Your task to perform on an android device: delete browsing data in the chrome app Image 0: 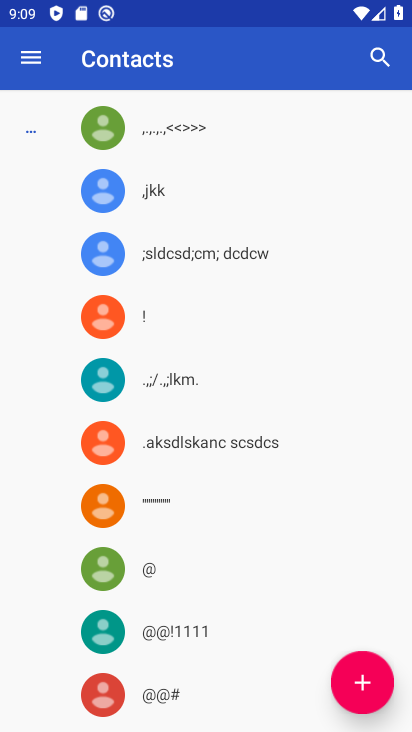
Step 0: press home button
Your task to perform on an android device: delete browsing data in the chrome app Image 1: 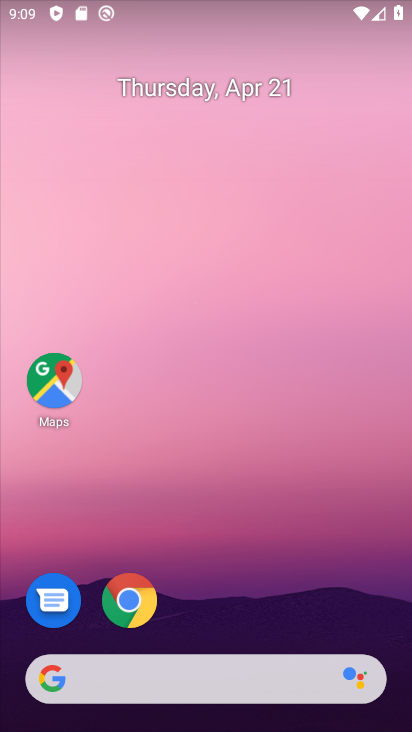
Step 1: click (132, 600)
Your task to perform on an android device: delete browsing data in the chrome app Image 2: 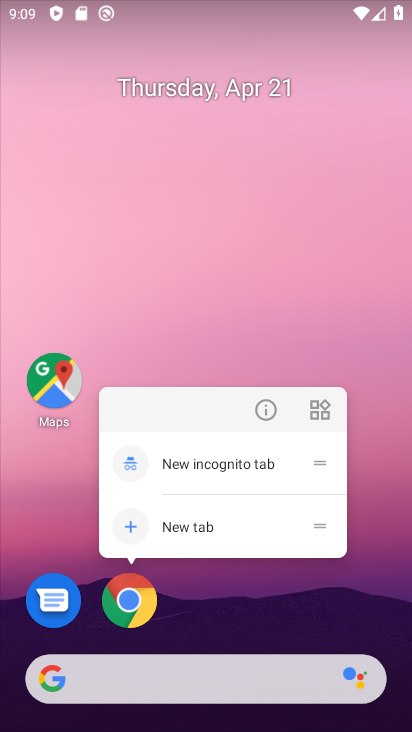
Step 2: click (132, 600)
Your task to perform on an android device: delete browsing data in the chrome app Image 3: 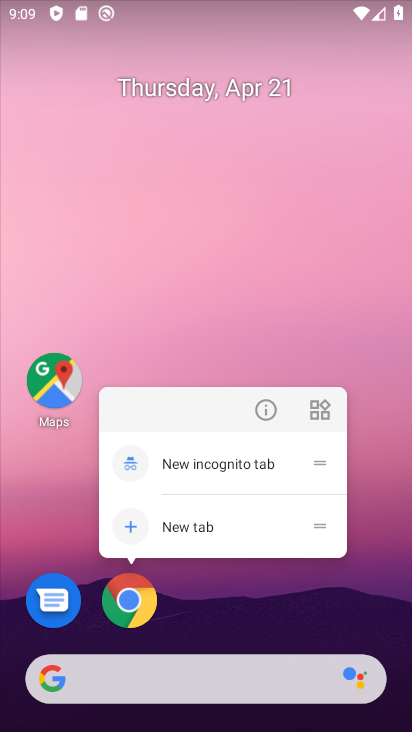
Step 3: click (259, 587)
Your task to perform on an android device: delete browsing data in the chrome app Image 4: 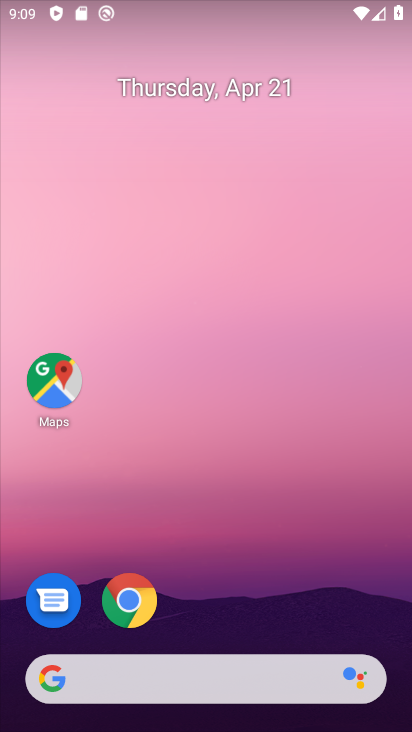
Step 4: click (133, 602)
Your task to perform on an android device: delete browsing data in the chrome app Image 5: 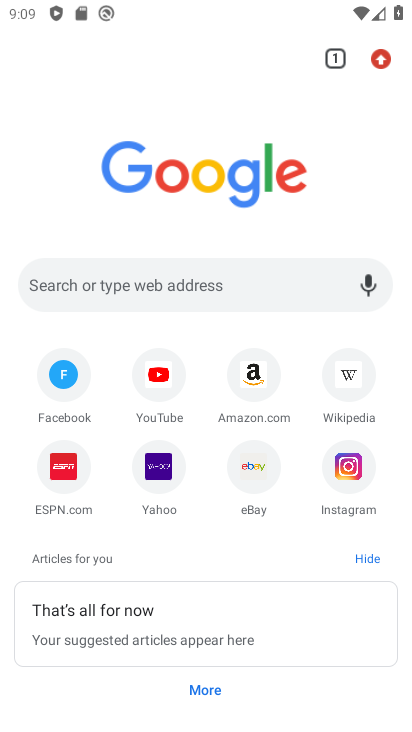
Step 5: click (380, 59)
Your task to perform on an android device: delete browsing data in the chrome app Image 6: 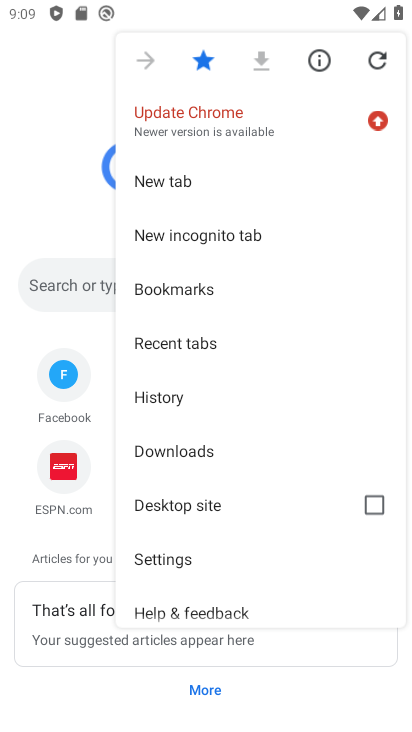
Step 6: click (171, 559)
Your task to perform on an android device: delete browsing data in the chrome app Image 7: 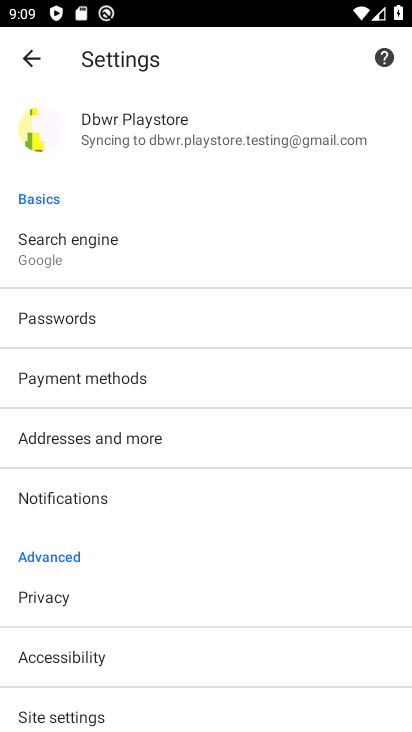
Step 7: click (83, 601)
Your task to perform on an android device: delete browsing data in the chrome app Image 8: 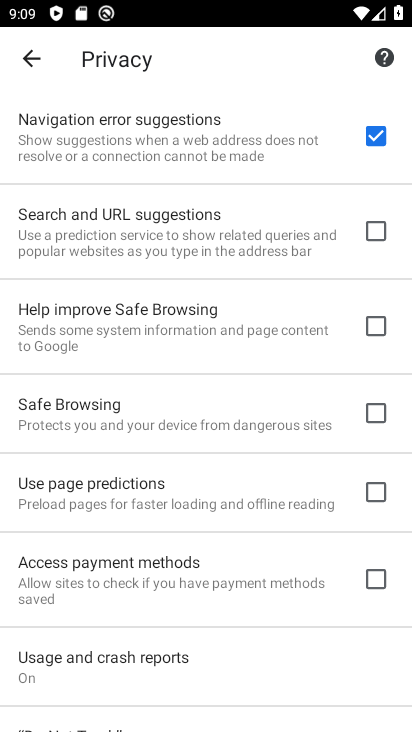
Step 8: drag from (189, 503) to (188, 6)
Your task to perform on an android device: delete browsing data in the chrome app Image 9: 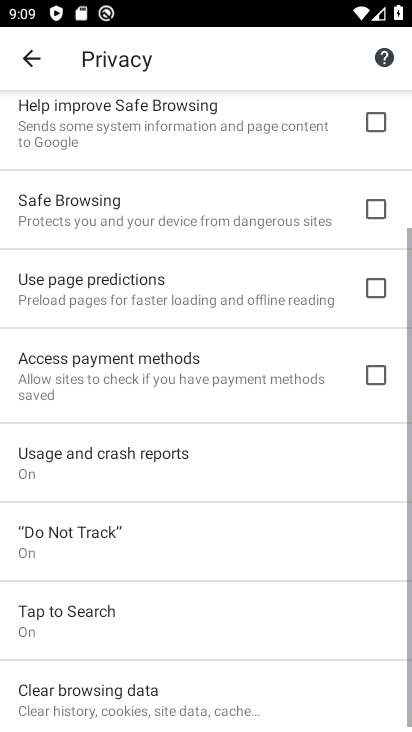
Step 9: click (123, 692)
Your task to perform on an android device: delete browsing data in the chrome app Image 10: 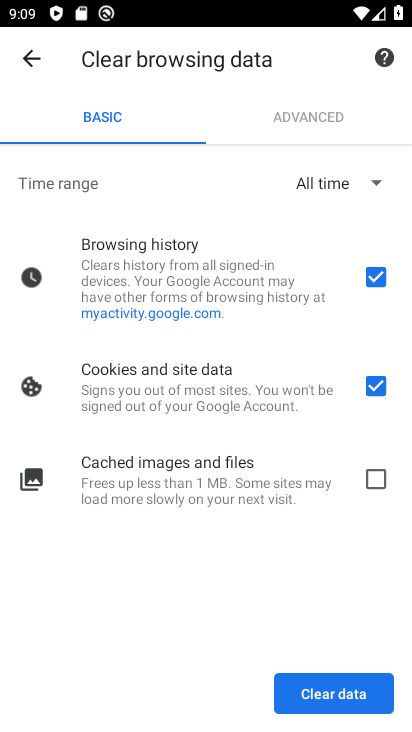
Step 10: click (376, 389)
Your task to perform on an android device: delete browsing data in the chrome app Image 11: 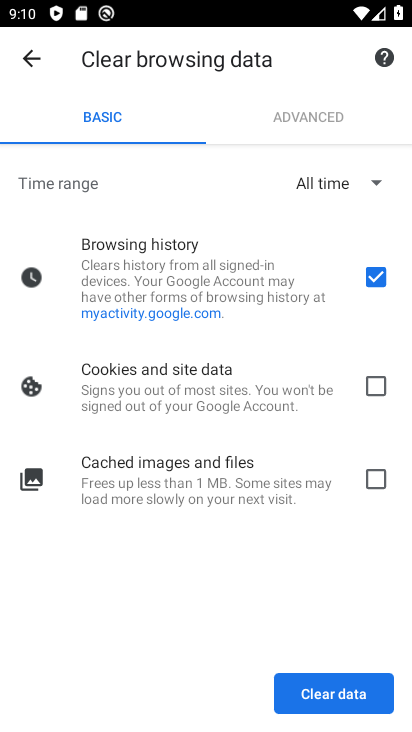
Step 11: click (322, 691)
Your task to perform on an android device: delete browsing data in the chrome app Image 12: 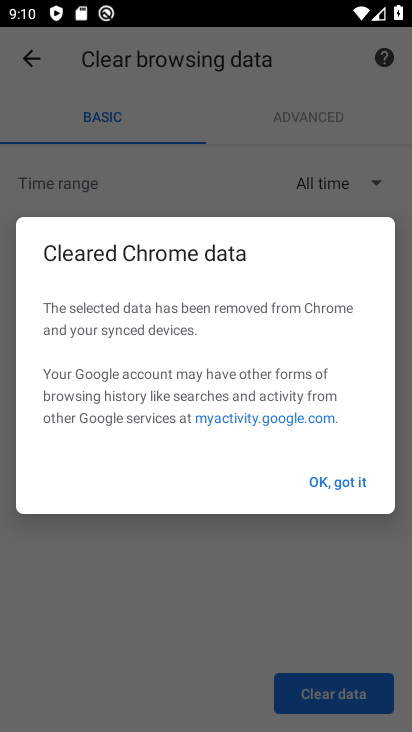
Step 12: click (337, 489)
Your task to perform on an android device: delete browsing data in the chrome app Image 13: 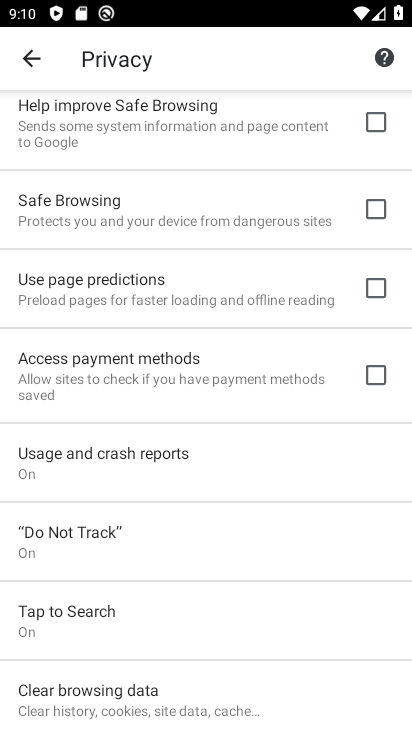
Step 13: task complete